Your task to perform on an android device: Add "razer huntsman" to the cart on ebay, then select checkout. Image 0: 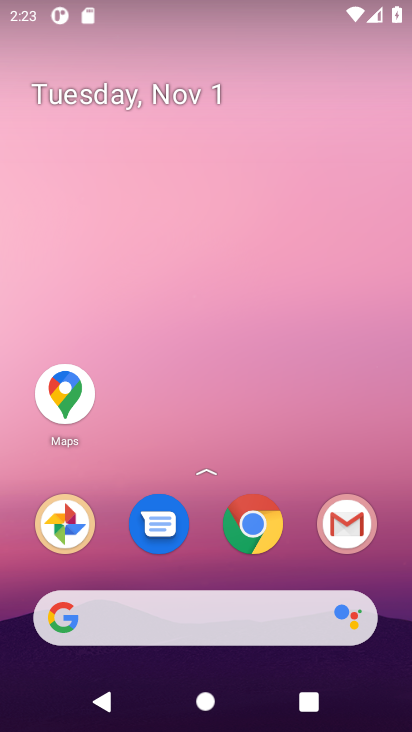
Step 0: click (252, 524)
Your task to perform on an android device: Add "razer huntsman" to the cart on ebay, then select checkout. Image 1: 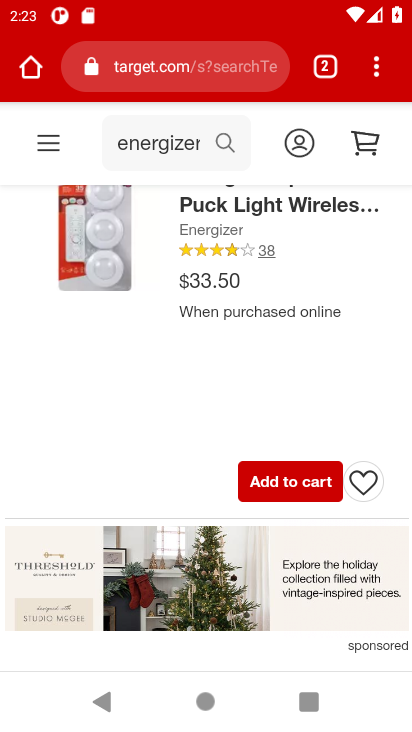
Step 1: click (164, 46)
Your task to perform on an android device: Add "razer huntsman" to the cart on ebay, then select checkout. Image 2: 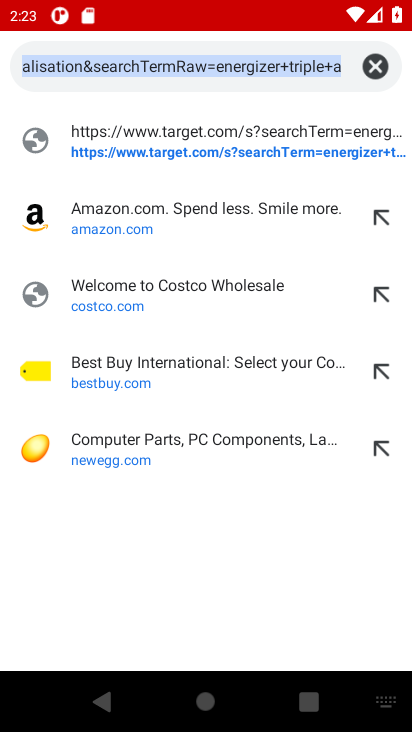
Step 2: click (378, 60)
Your task to perform on an android device: Add "razer huntsman" to the cart on ebay, then select checkout. Image 3: 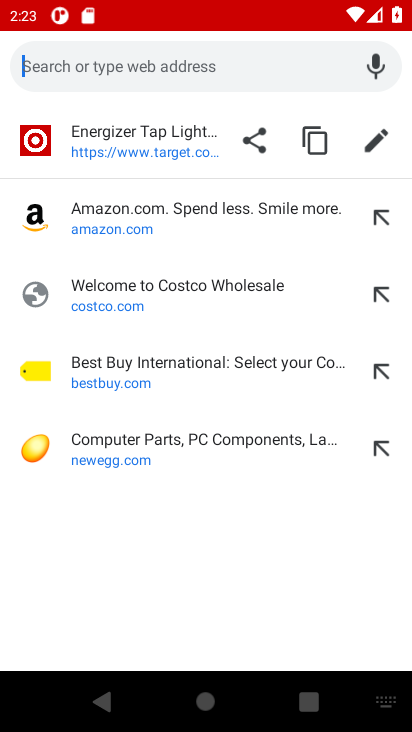
Step 3: type "ebay"
Your task to perform on an android device: Add "razer huntsman" to the cart on ebay, then select checkout. Image 4: 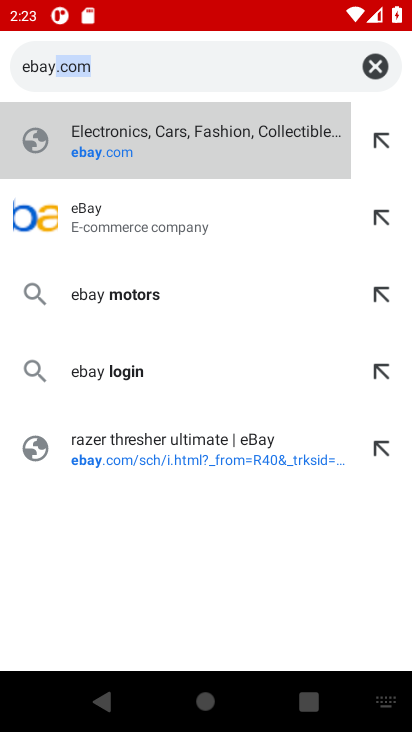
Step 4: click (101, 207)
Your task to perform on an android device: Add "razer huntsman" to the cart on ebay, then select checkout. Image 5: 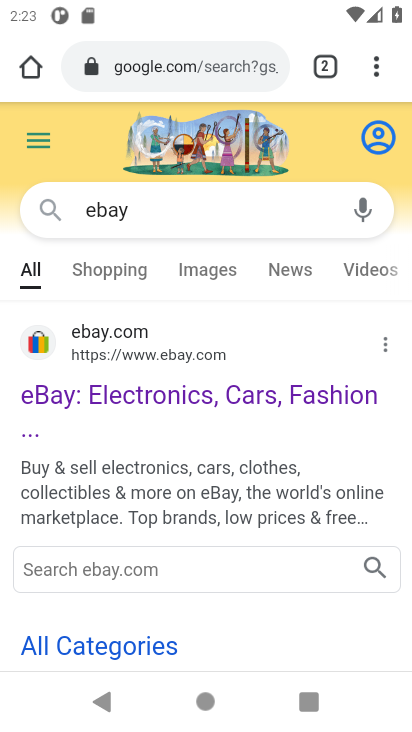
Step 5: click (122, 395)
Your task to perform on an android device: Add "razer huntsman" to the cart on ebay, then select checkout. Image 6: 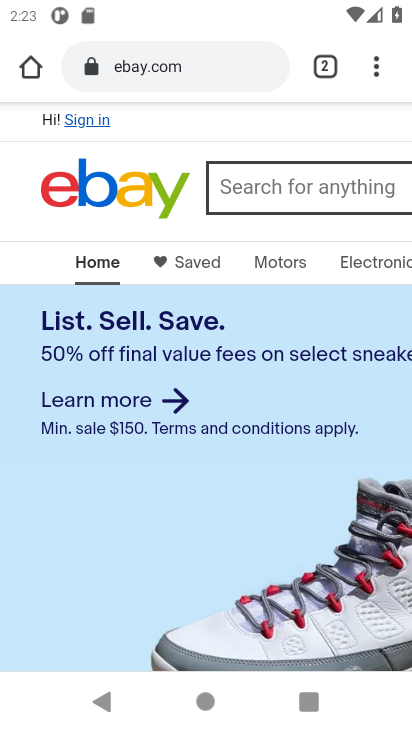
Step 6: click (313, 184)
Your task to perform on an android device: Add "razer huntsman" to the cart on ebay, then select checkout. Image 7: 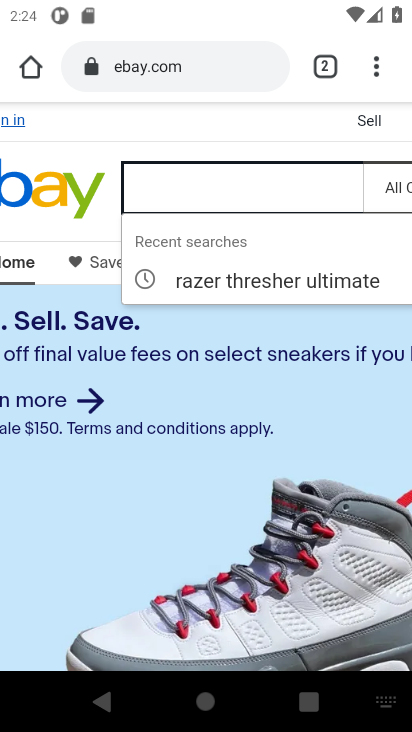
Step 7: type "razer huntsman"
Your task to perform on an android device: Add "razer huntsman" to the cart on ebay, then select checkout. Image 8: 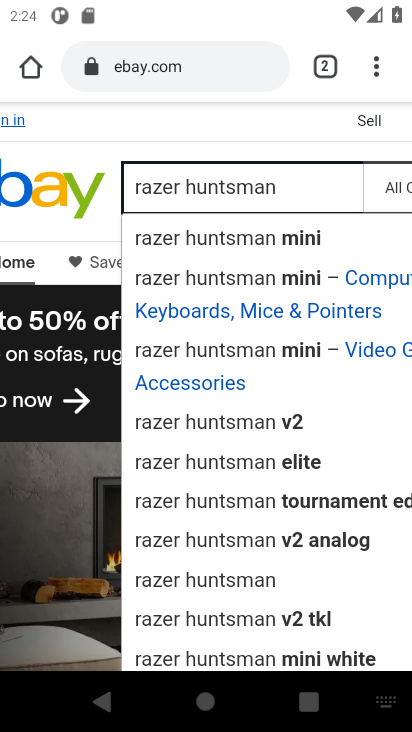
Step 8: click (173, 229)
Your task to perform on an android device: Add "razer huntsman" to the cart on ebay, then select checkout. Image 9: 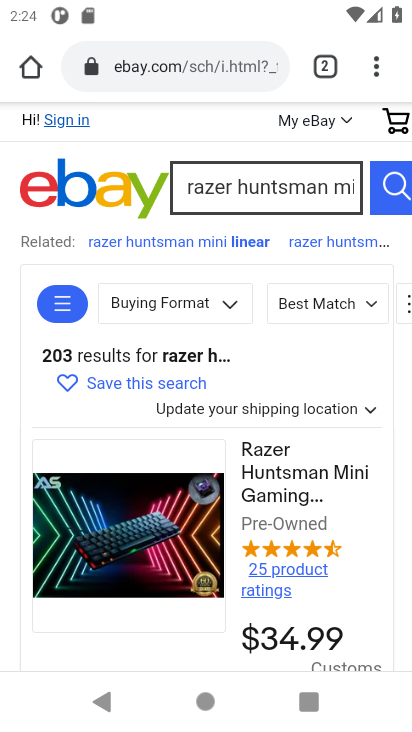
Step 9: click (256, 480)
Your task to perform on an android device: Add "razer huntsman" to the cart on ebay, then select checkout. Image 10: 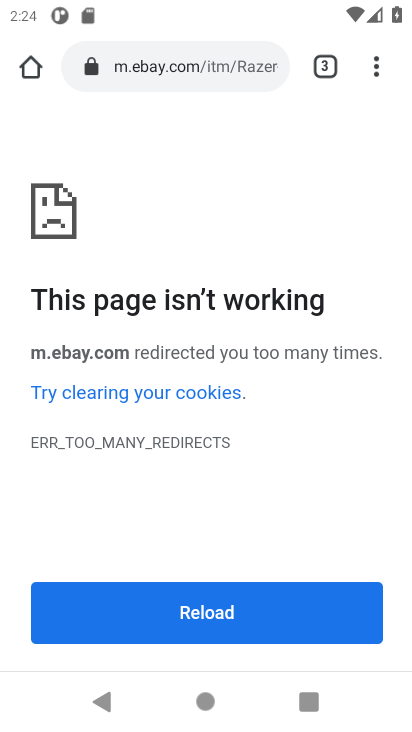
Step 10: task complete